Your task to perform on an android device: Open calendar and show me the second week of next month Image 0: 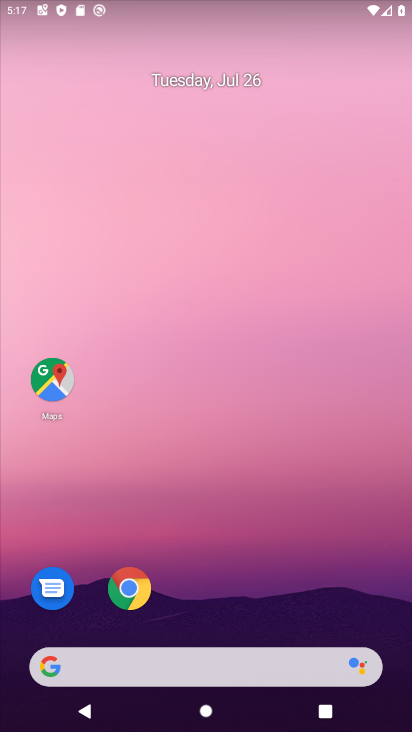
Step 0: drag from (194, 666) to (199, 129)
Your task to perform on an android device: Open calendar and show me the second week of next month Image 1: 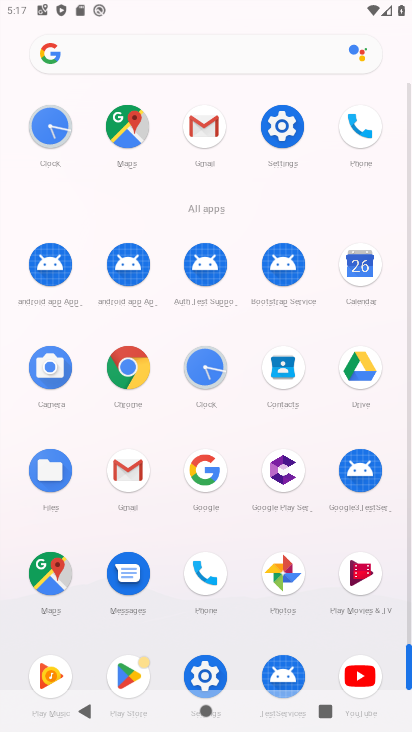
Step 1: click (346, 277)
Your task to perform on an android device: Open calendar and show me the second week of next month Image 2: 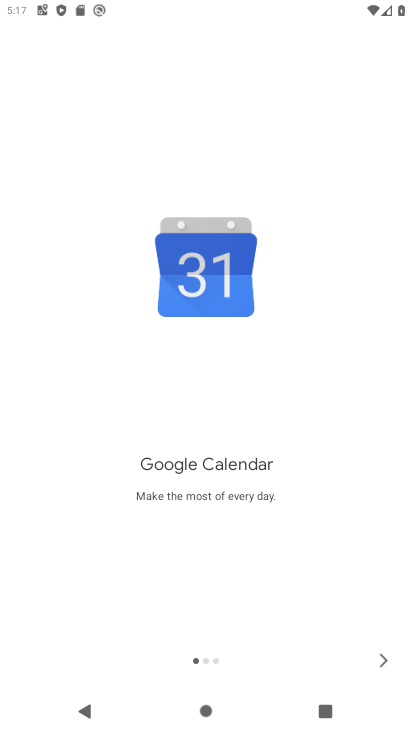
Step 2: click (380, 666)
Your task to perform on an android device: Open calendar and show me the second week of next month Image 3: 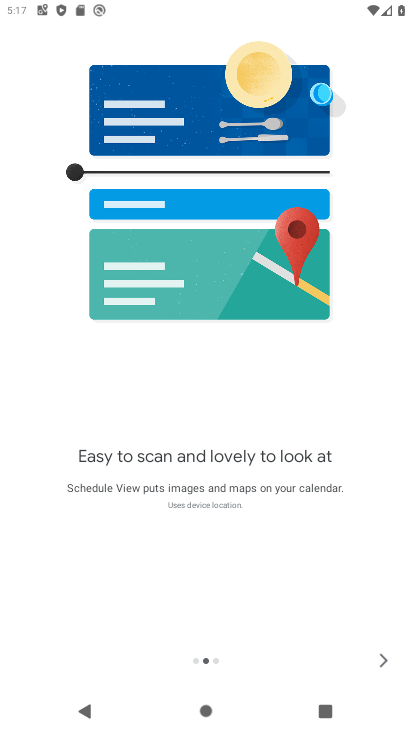
Step 3: click (376, 668)
Your task to perform on an android device: Open calendar and show me the second week of next month Image 4: 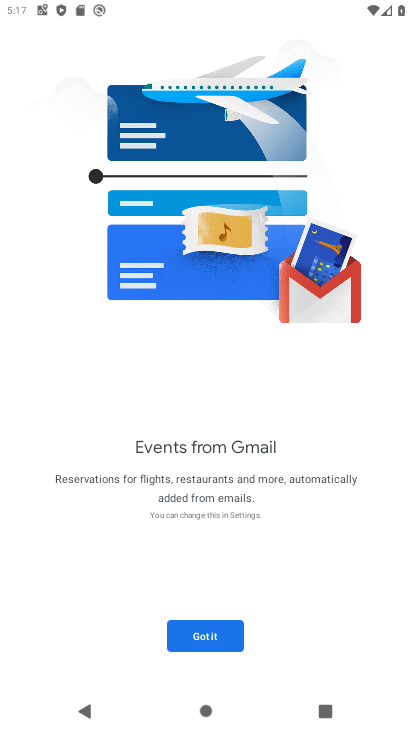
Step 4: click (209, 640)
Your task to perform on an android device: Open calendar and show me the second week of next month Image 5: 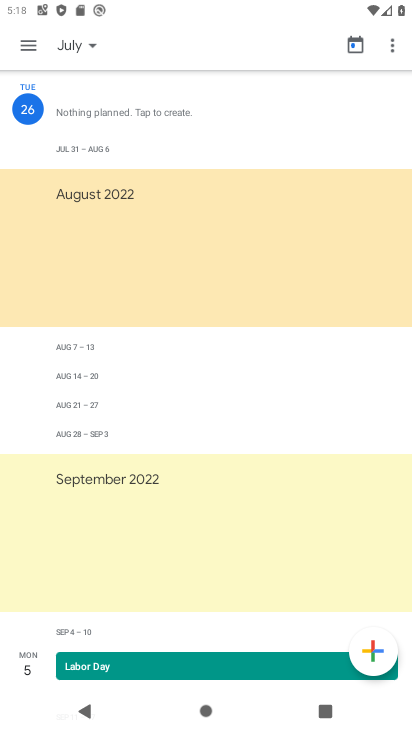
Step 5: click (96, 42)
Your task to perform on an android device: Open calendar and show me the second week of next month Image 6: 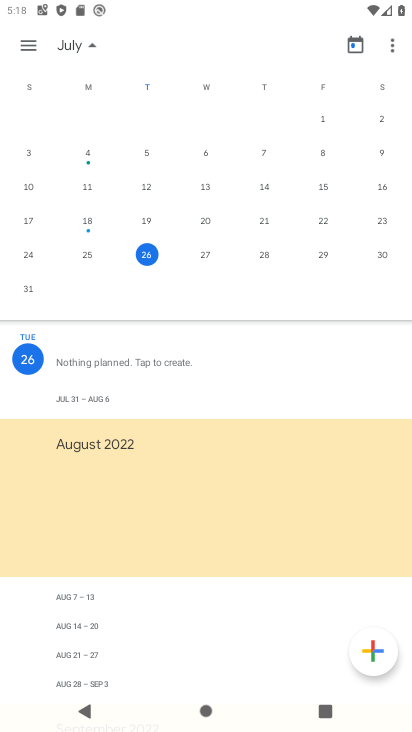
Step 6: drag from (340, 232) to (41, 251)
Your task to perform on an android device: Open calendar and show me the second week of next month Image 7: 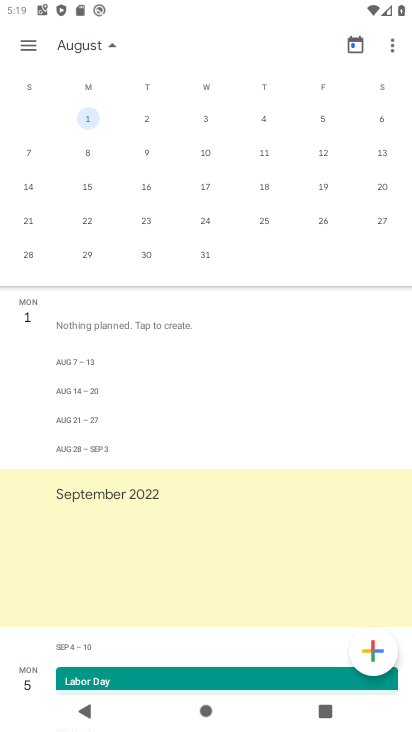
Step 7: click (87, 158)
Your task to perform on an android device: Open calendar and show me the second week of next month Image 8: 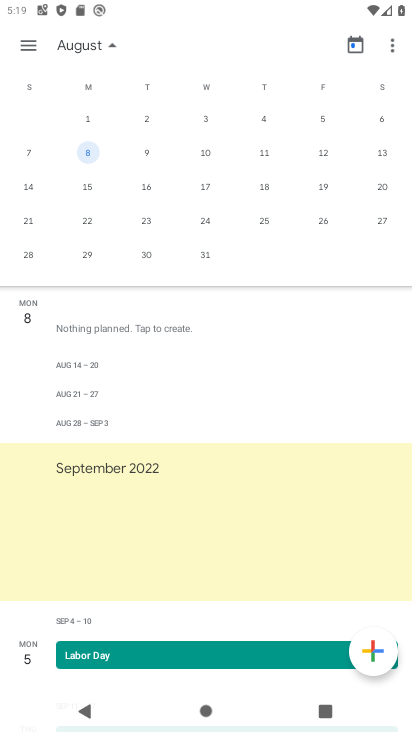
Step 8: task complete